Your task to perform on an android device: Open calendar and show me the second week of next month Image 0: 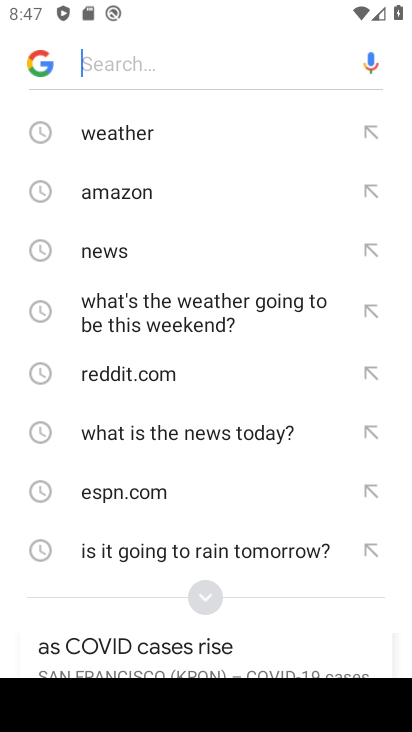
Step 0: press home button
Your task to perform on an android device: Open calendar and show me the second week of next month Image 1: 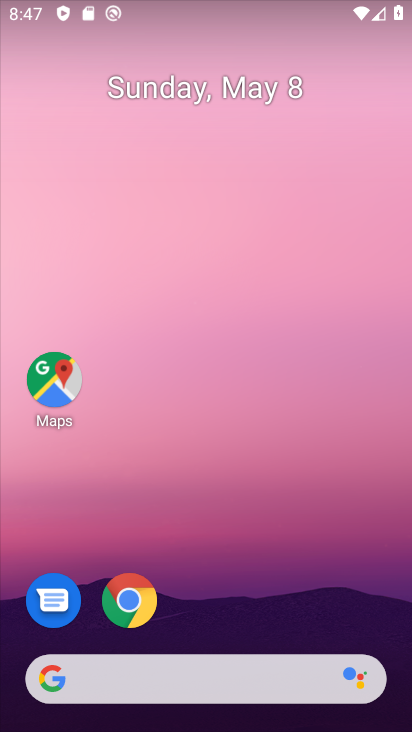
Step 1: drag from (306, 495) to (332, 84)
Your task to perform on an android device: Open calendar and show me the second week of next month Image 2: 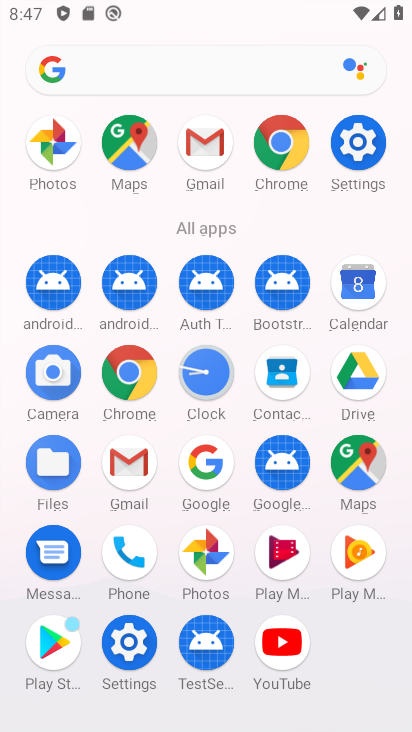
Step 2: click (347, 304)
Your task to perform on an android device: Open calendar and show me the second week of next month Image 3: 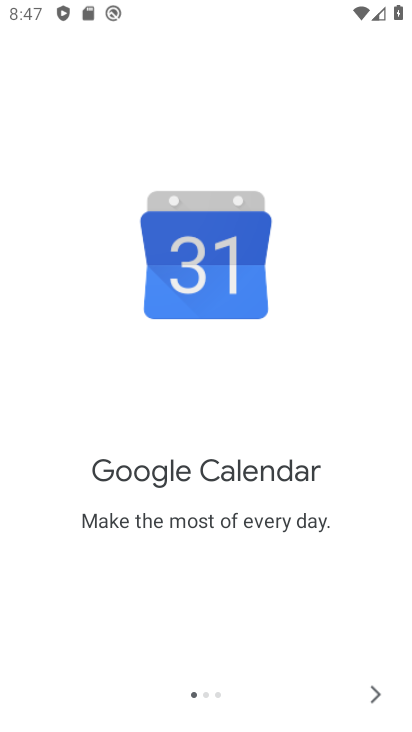
Step 3: click (374, 696)
Your task to perform on an android device: Open calendar and show me the second week of next month Image 4: 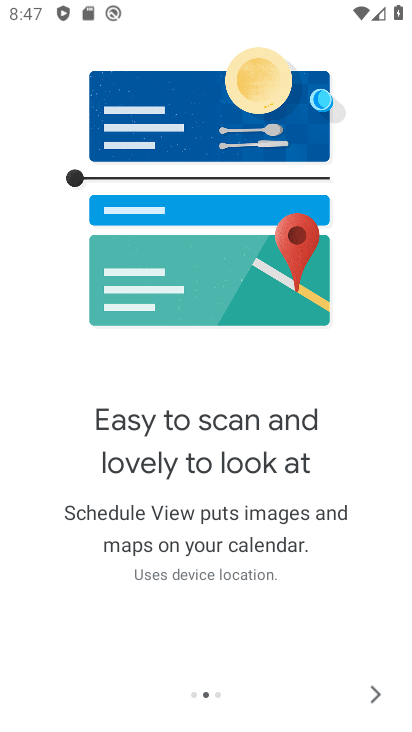
Step 4: click (373, 703)
Your task to perform on an android device: Open calendar and show me the second week of next month Image 5: 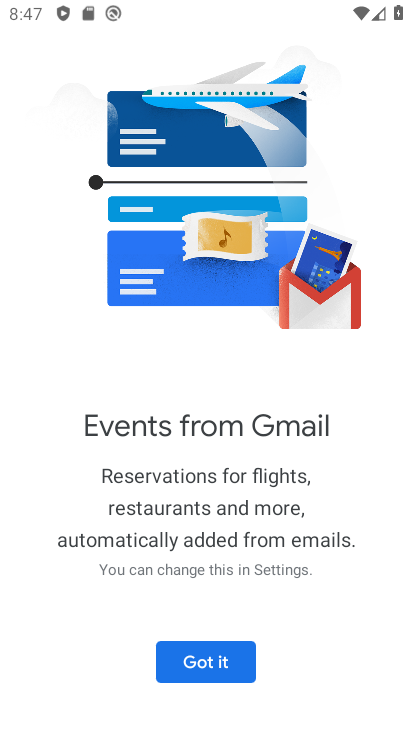
Step 5: click (227, 675)
Your task to perform on an android device: Open calendar and show me the second week of next month Image 6: 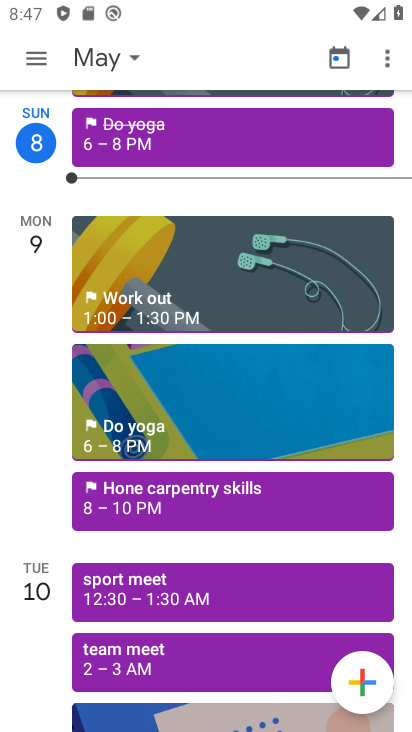
Step 6: click (112, 68)
Your task to perform on an android device: Open calendar and show me the second week of next month Image 7: 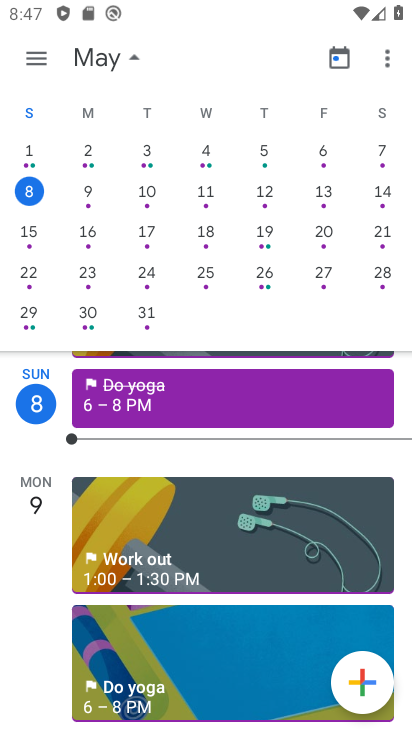
Step 7: drag from (316, 241) to (9, 221)
Your task to perform on an android device: Open calendar and show me the second week of next month Image 8: 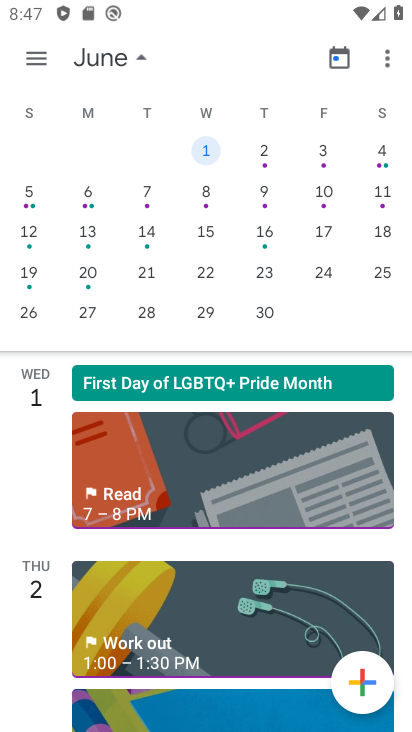
Step 8: click (26, 207)
Your task to perform on an android device: Open calendar and show me the second week of next month Image 9: 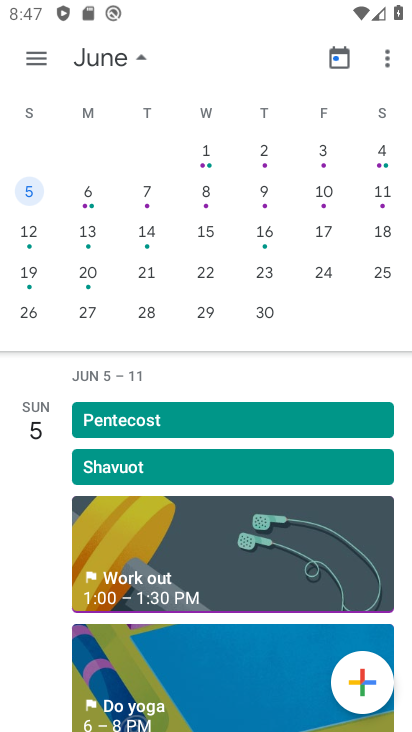
Step 9: click (93, 207)
Your task to perform on an android device: Open calendar and show me the second week of next month Image 10: 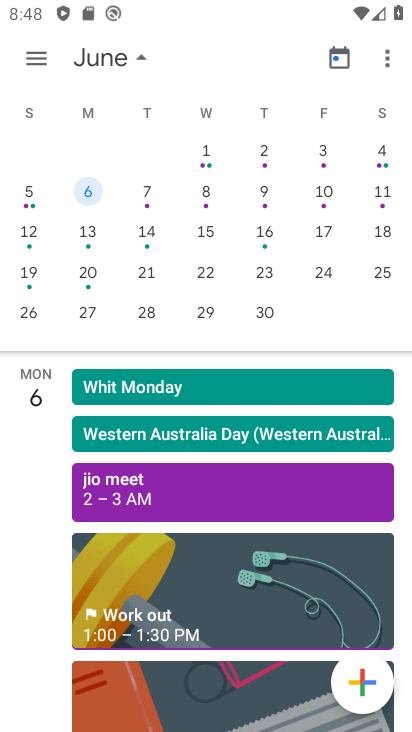
Step 10: click (141, 198)
Your task to perform on an android device: Open calendar and show me the second week of next month Image 11: 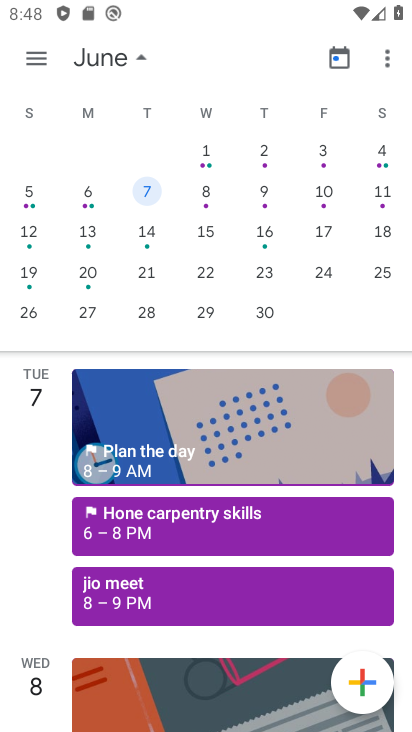
Step 11: click (205, 201)
Your task to perform on an android device: Open calendar and show me the second week of next month Image 12: 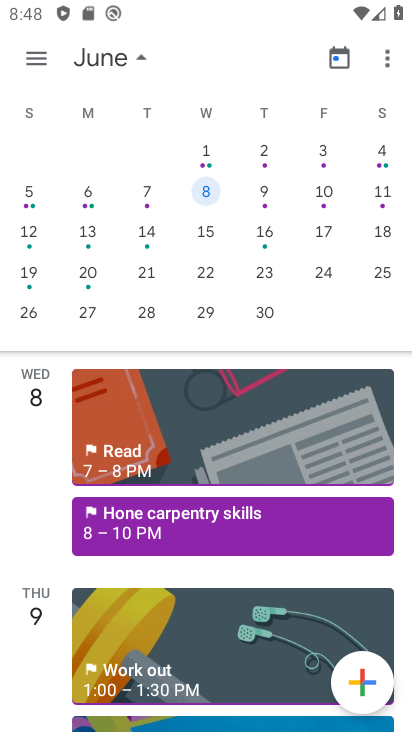
Step 12: click (274, 204)
Your task to perform on an android device: Open calendar and show me the second week of next month Image 13: 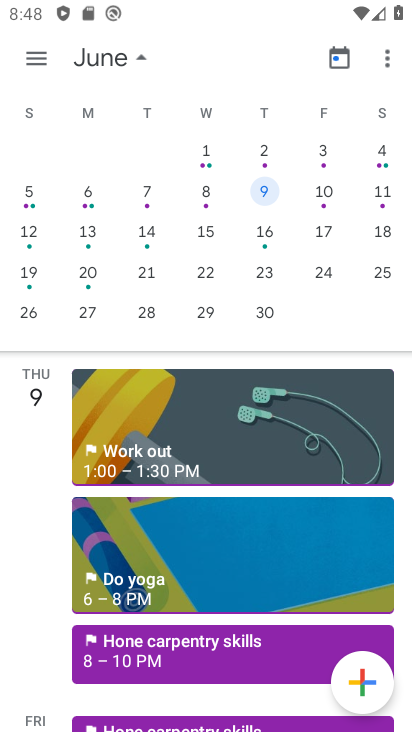
Step 13: click (332, 202)
Your task to perform on an android device: Open calendar and show me the second week of next month Image 14: 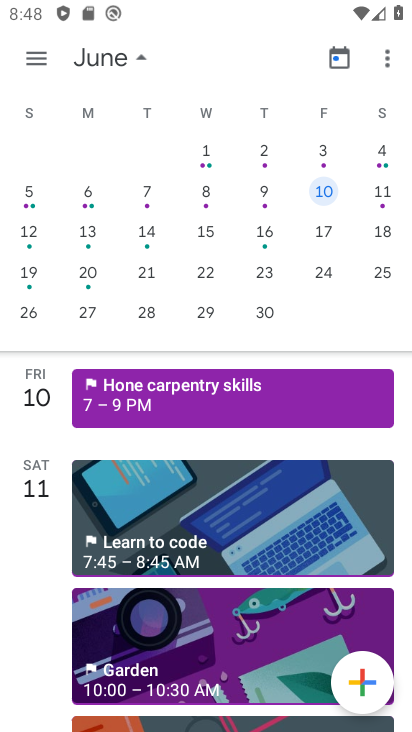
Step 14: click (380, 206)
Your task to perform on an android device: Open calendar and show me the second week of next month Image 15: 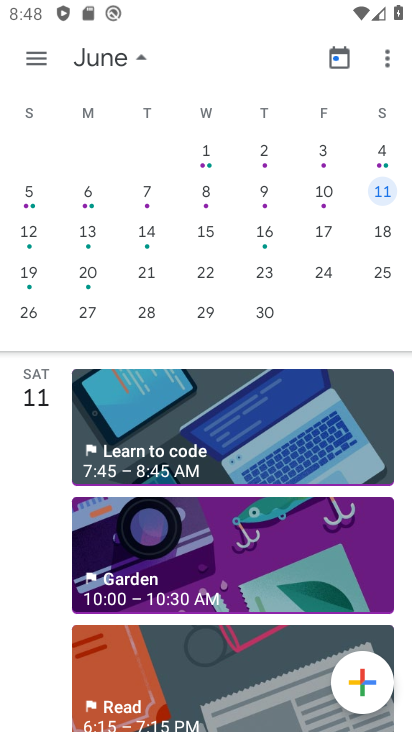
Step 15: task complete